Your task to perform on an android device: turn pop-ups on in chrome Image 0: 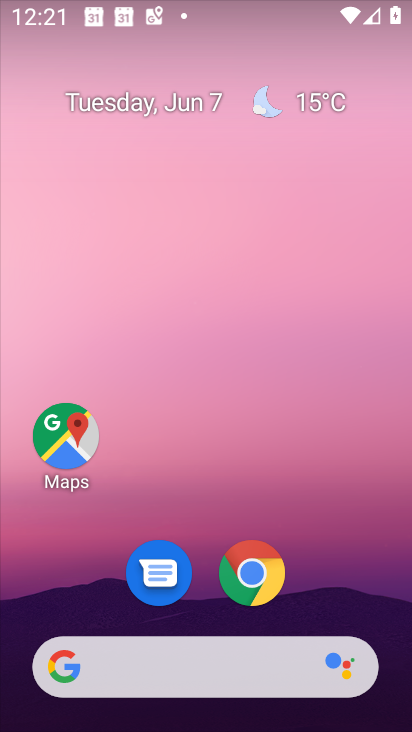
Step 0: click (259, 579)
Your task to perform on an android device: turn pop-ups on in chrome Image 1: 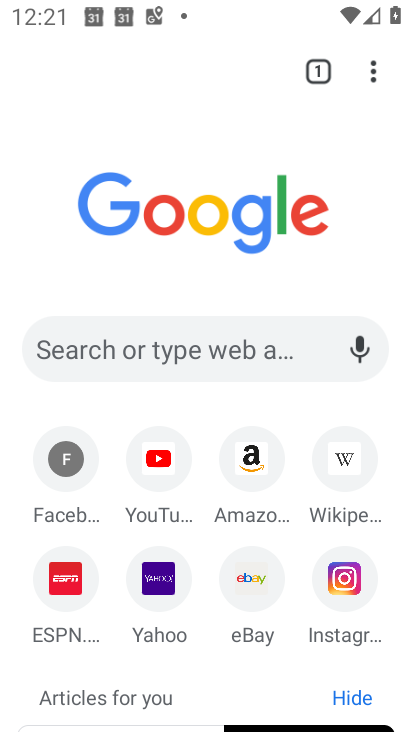
Step 1: drag from (373, 74) to (97, 588)
Your task to perform on an android device: turn pop-ups on in chrome Image 2: 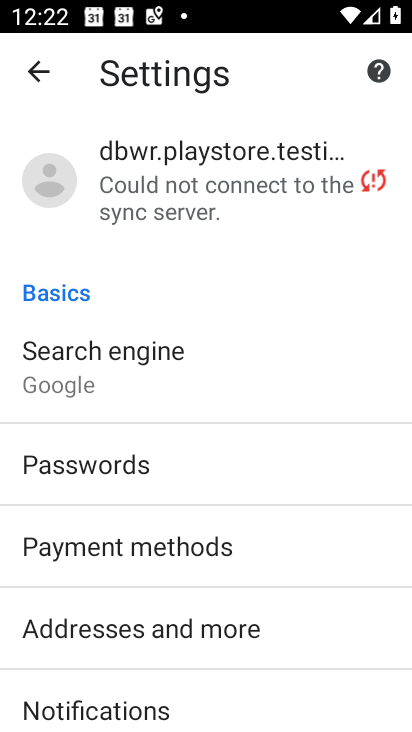
Step 2: drag from (297, 701) to (274, 159)
Your task to perform on an android device: turn pop-ups on in chrome Image 3: 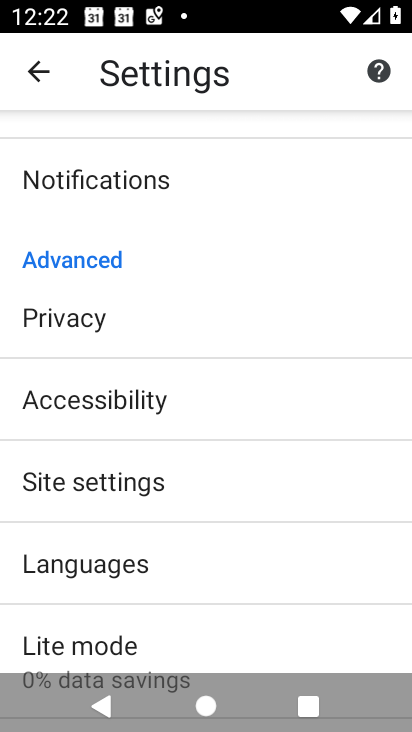
Step 3: click (157, 476)
Your task to perform on an android device: turn pop-ups on in chrome Image 4: 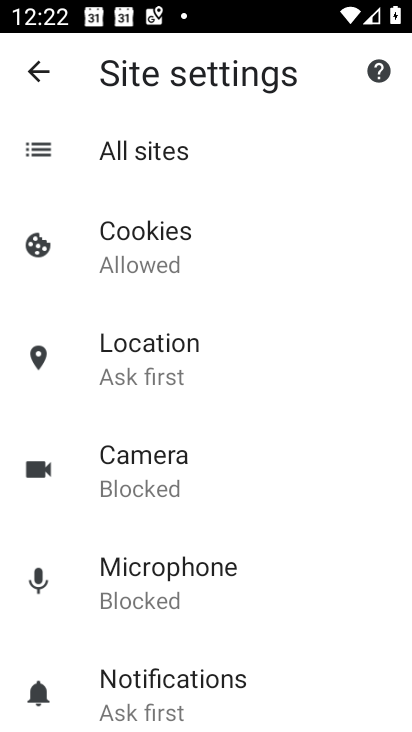
Step 4: drag from (334, 664) to (289, 231)
Your task to perform on an android device: turn pop-ups on in chrome Image 5: 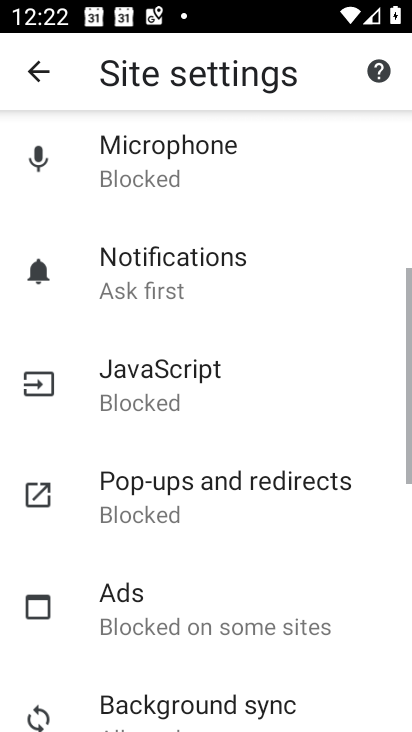
Step 5: click (264, 494)
Your task to perform on an android device: turn pop-ups on in chrome Image 6: 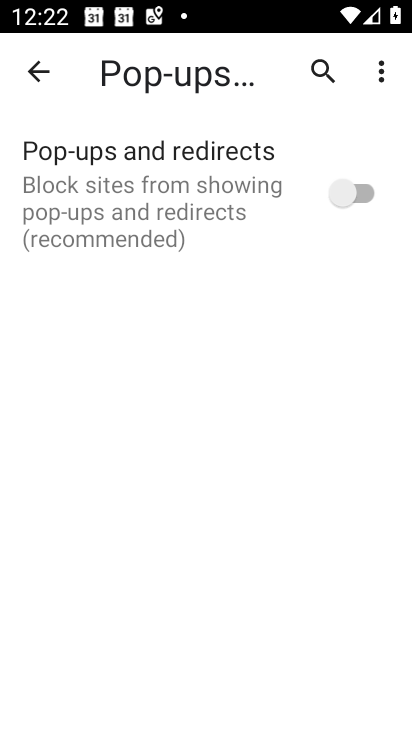
Step 6: click (358, 198)
Your task to perform on an android device: turn pop-ups on in chrome Image 7: 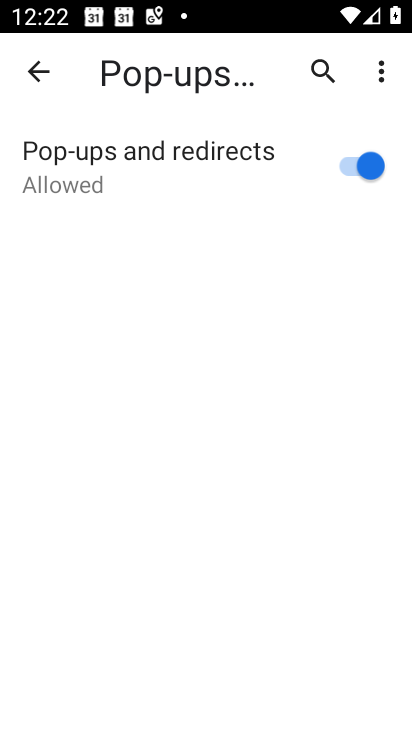
Step 7: task complete